Your task to perform on an android device: Do I have any events today? Image 0: 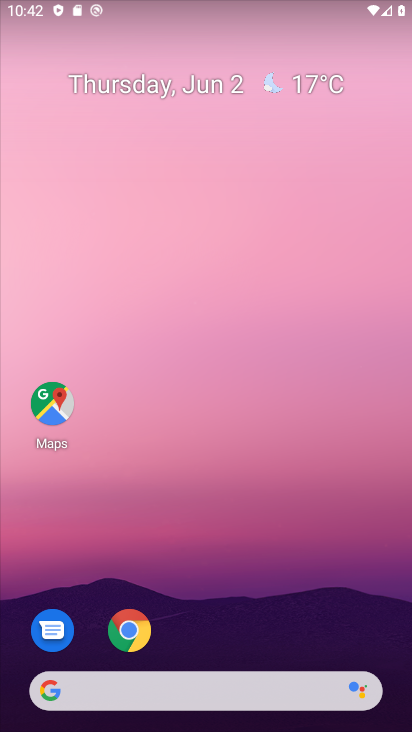
Step 0: drag from (229, 657) to (273, 157)
Your task to perform on an android device: Do I have any events today? Image 1: 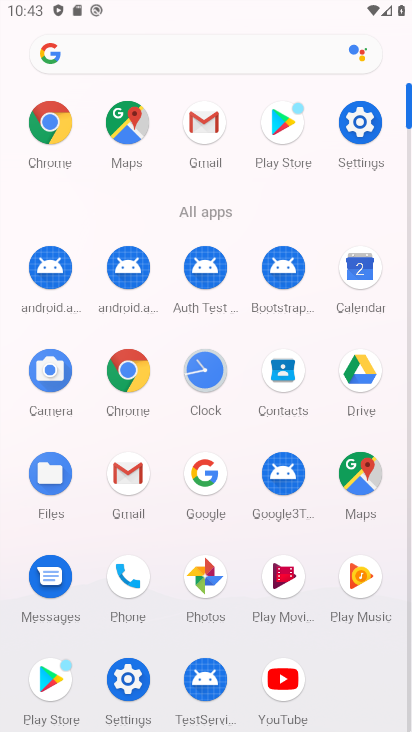
Step 1: click (360, 298)
Your task to perform on an android device: Do I have any events today? Image 2: 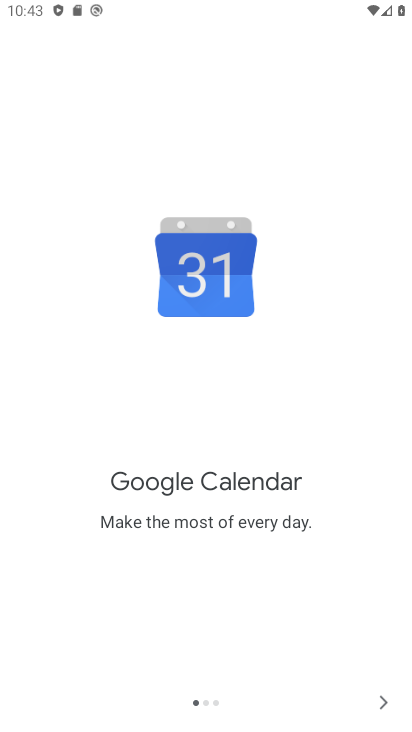
Step 2: click (383, 695)
Your task to perform on an android device: Do I have any events today? Image 3: 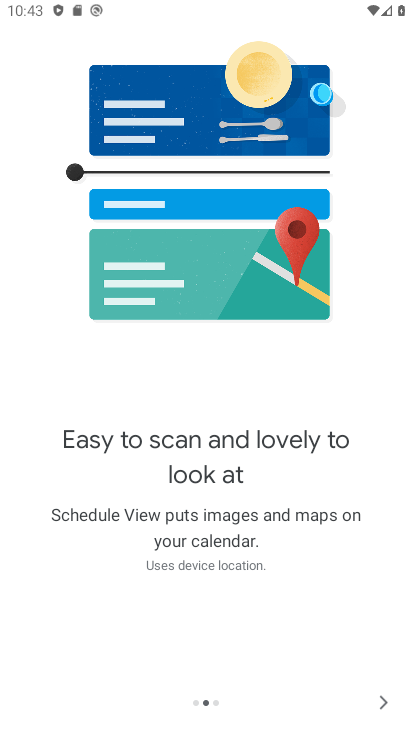
Step 3: click (383, 695)
Your task to perform on an android device: Do I have any events today? Image 4: 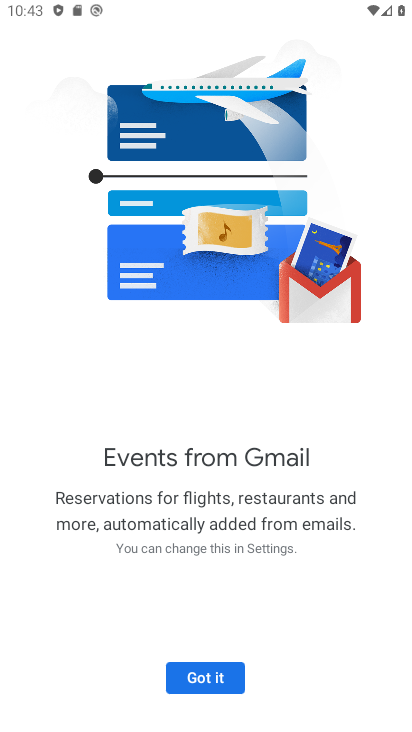
Step 4: click (196, 676)
Your task to perform on an android device: Do I have any events today? Image 5: 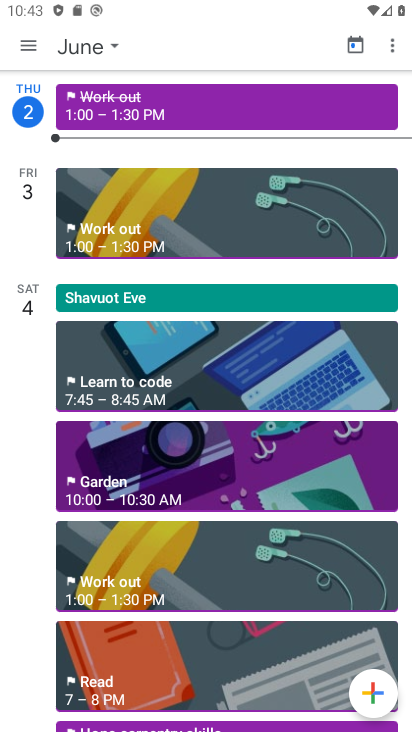
Step 5: click (16, 45)
Your task to perform on an android device: Do I have any events today? Image 6: 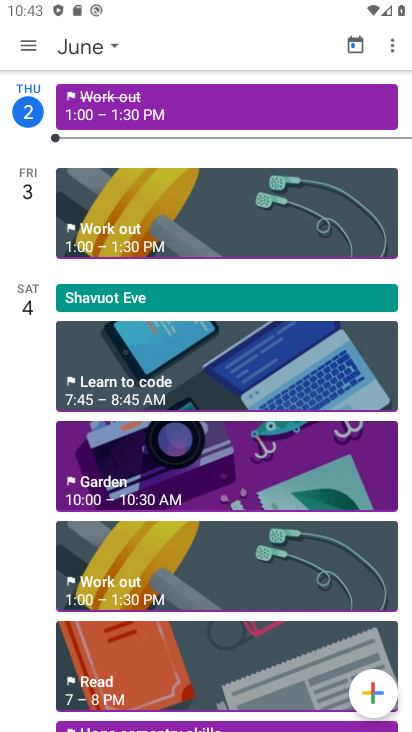
Step 6: click (33, 40)
Your task to perform on an android device: Do I have any events today? Image 7: 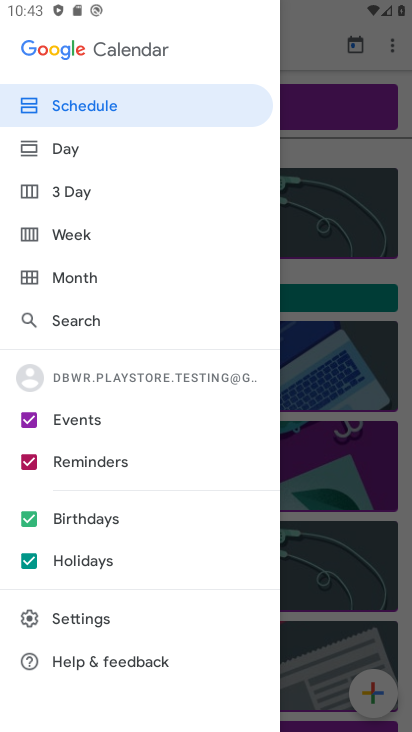
Step 7: click (88, 455)
Your task to perform on an android device: Do I have any events today? Image 8: 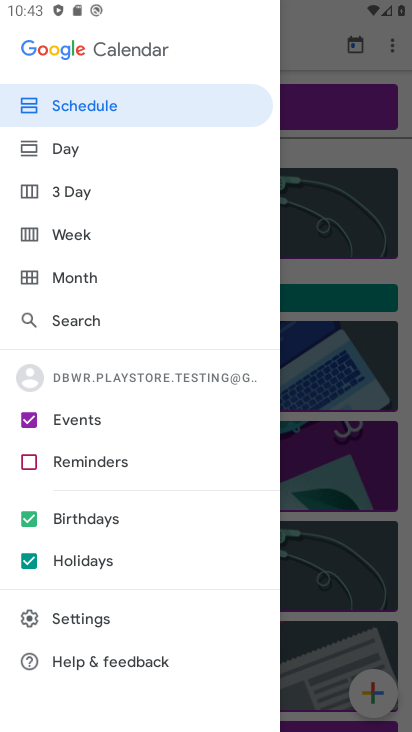
Step 8: click (89, 524)
Your task to perform on an android device: Do I have any events today? Image 9: 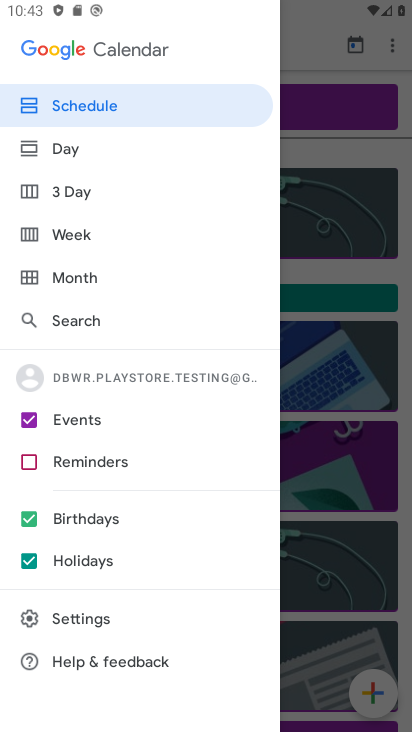
Step 9: click (85, 568)
Your task to perform on an android device: Do I have any events today? Image 10: 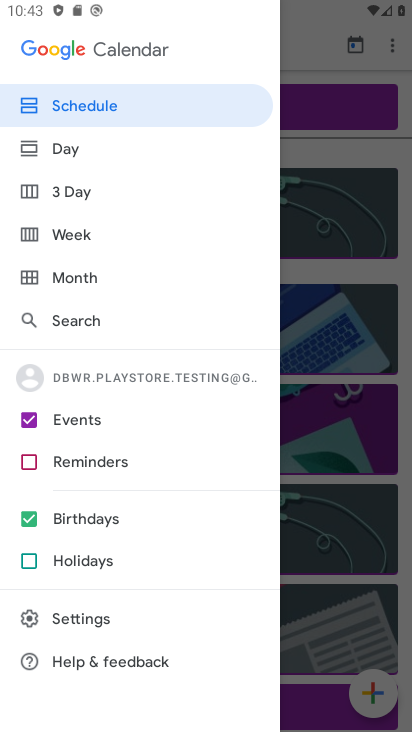
Step 10: click (81, 514)
Your task to perform on an android device: Do I have any events today? Image 11: 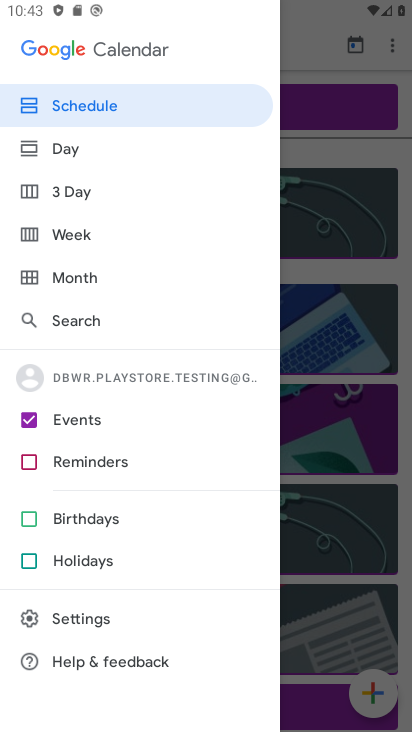
Step 11: click (83, 160)
Your task to perform on an android device: Do I have any events today? Image 12: 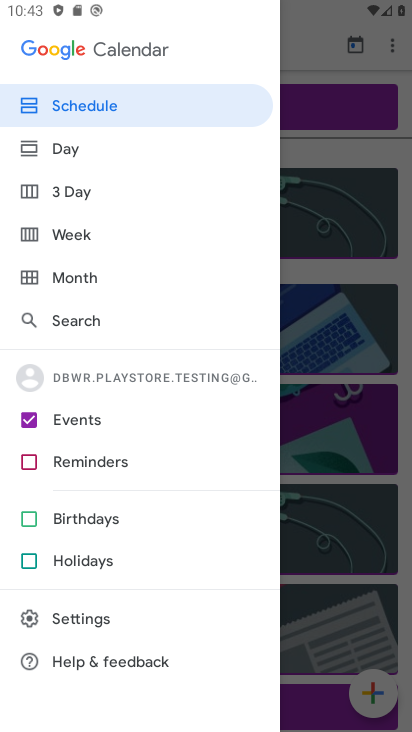
Step 12: click (98, 145)
Your task to perform on an android device: Do I have any events today? Image 13: 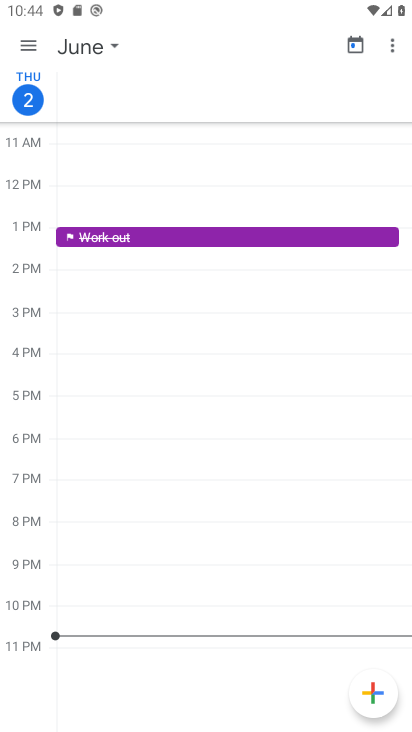
Step 13: task complete